Your task to perform on an android device: open a bookmark in the chrome app Image 0: 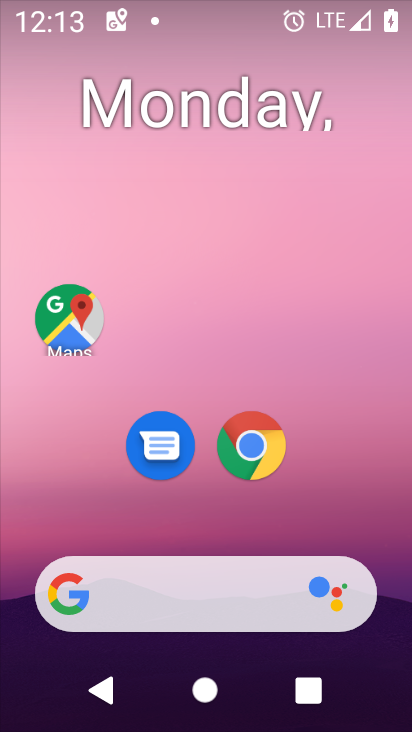
Step 0: drag from (240, 481) to (251, 154)
Your task to perform on an android device: open a bookmark in the chrome app Image 1: 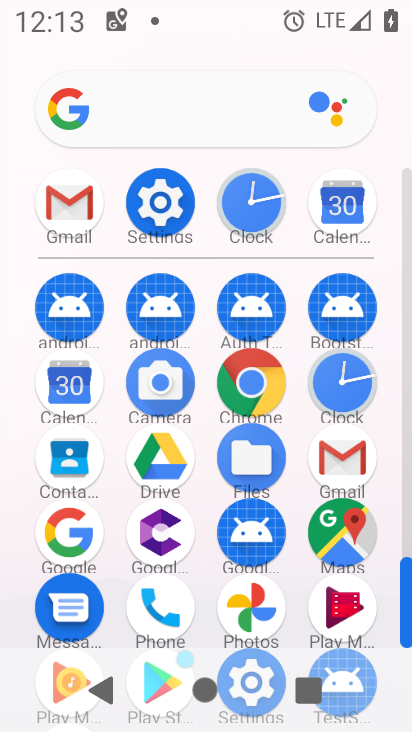
Step 1: click (253, 389)
Your task to perform on an android device: open a bookmark in the chrome app Image 2: 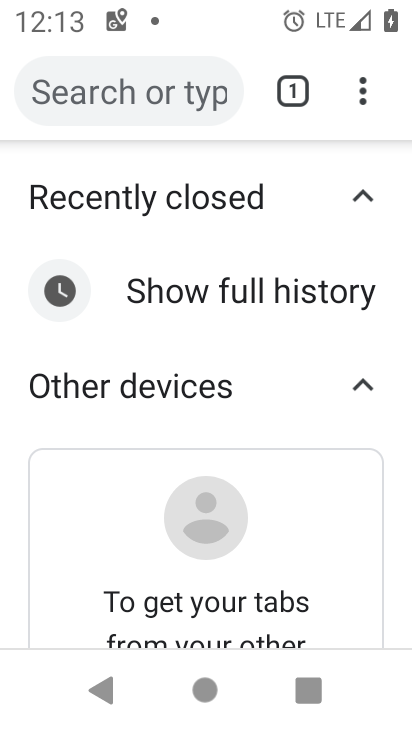
Step 2: task complete